Your task to perform on an android device: create a new album in the google photos Image 0: 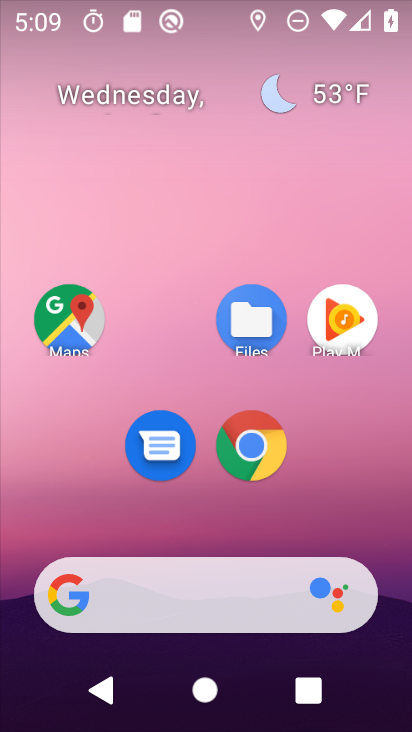
Step 0: drag from (341, 496) to (232, 3)
Your task to perform on an android device: create a new album in the google photos Image 1: 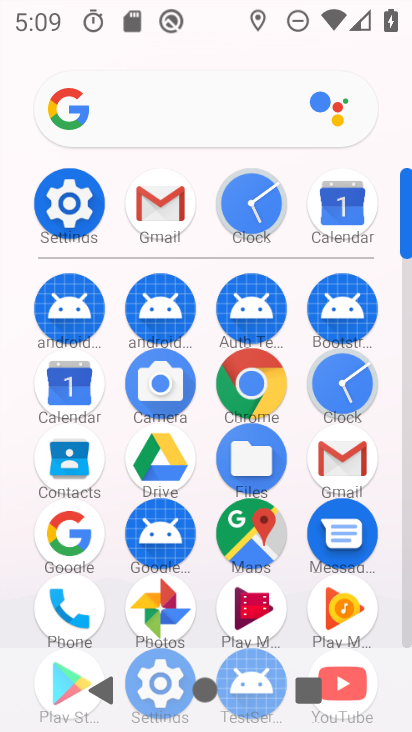
Step 1: click (143, 610)
Your task to perform on an android device: create a new album in the google photos Image 2: 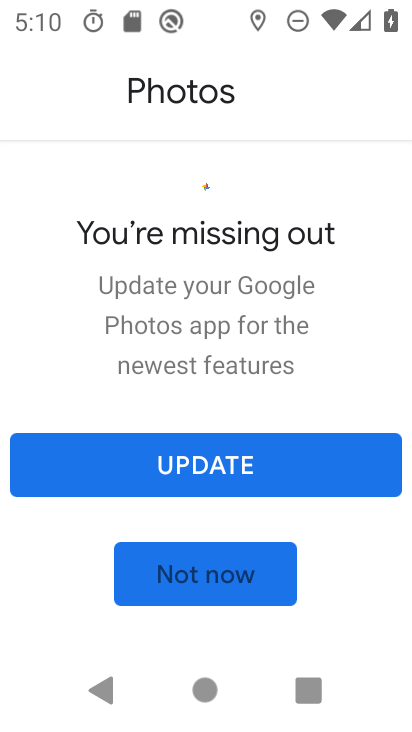
Step 2: click (229, 477)
Your task to perform on an android device: create a new album in the google photos Image 3: 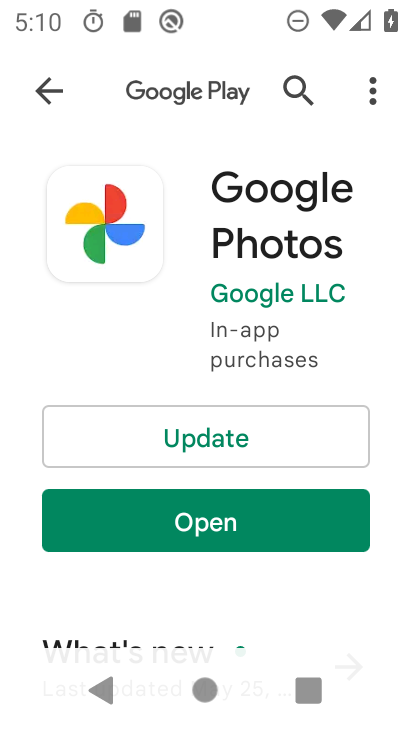
Step 3: click (228, 444)
Your task to perform on an android device: create a new album in the google photos Image 4: 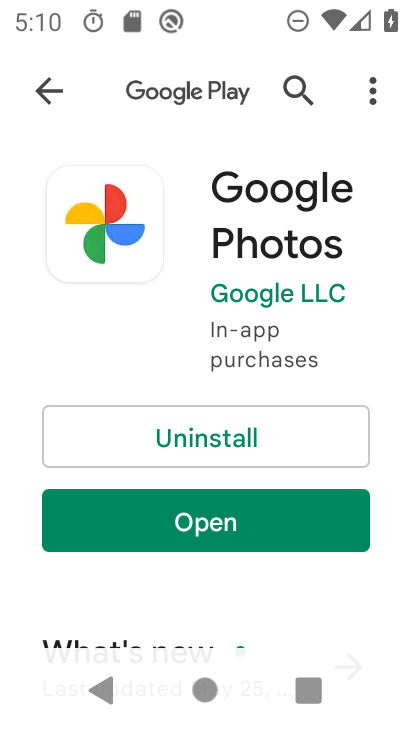
Step 4: click (218, 521)
Your task to perform on an android device: create a new album in the google photos Image 5: 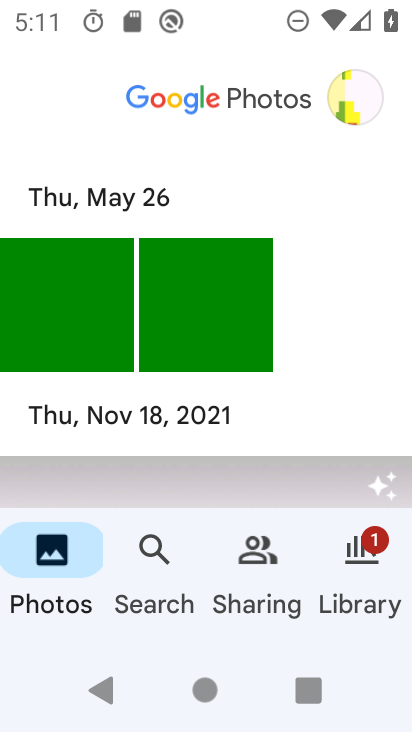
Step 5: click (160, 348)
Your task to perform on an android device: create a new album in the google photos Image 6: 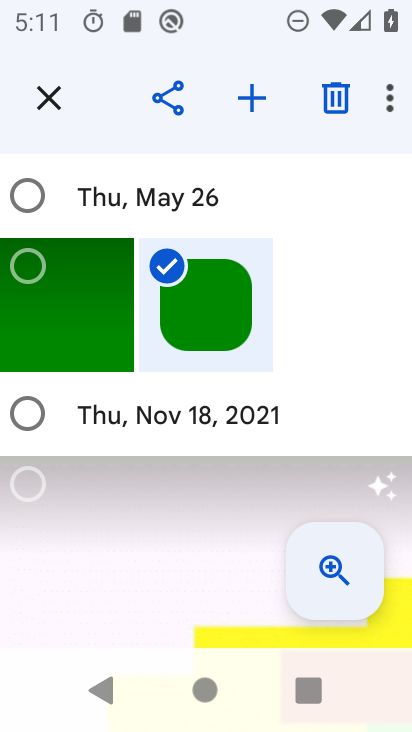
Step 6: click (59, 277)
Your task to perform on an android device: create a new album in the google photos Image 7: 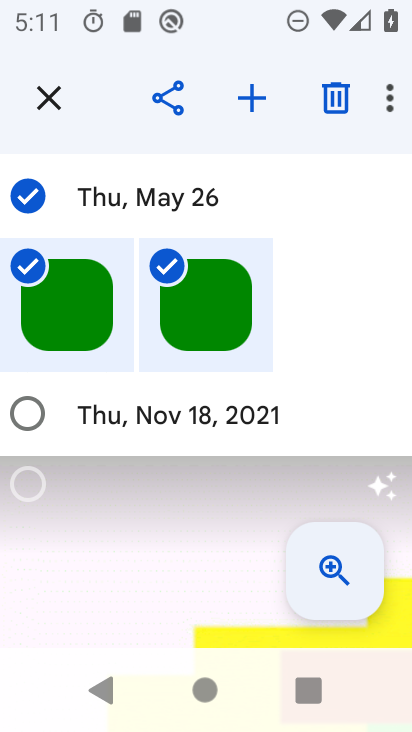
Step 7: click (24, 419)
Your task to perform on an android device: create a new album in the google photos Image 8: 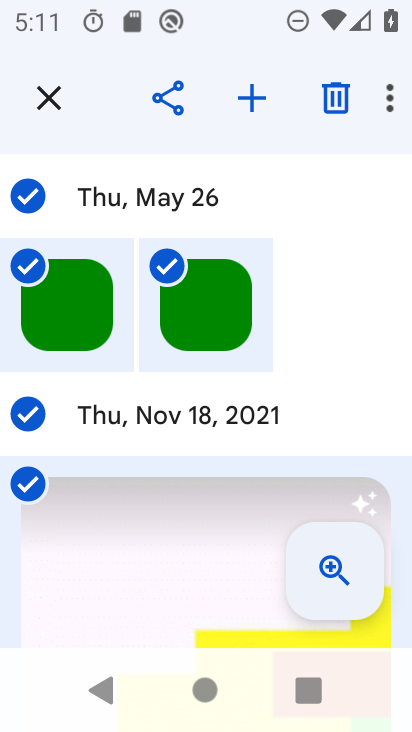
Step 8: click (255, 100)
Your task to perform on an android device: create a new album in the google photos Image 9: 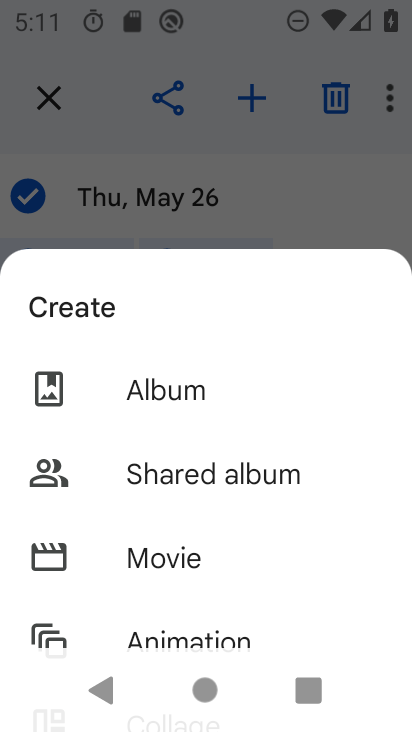
Step 9: click (166, 401)
Your task to perform on an android device: create a new album in the google photos Image 10: 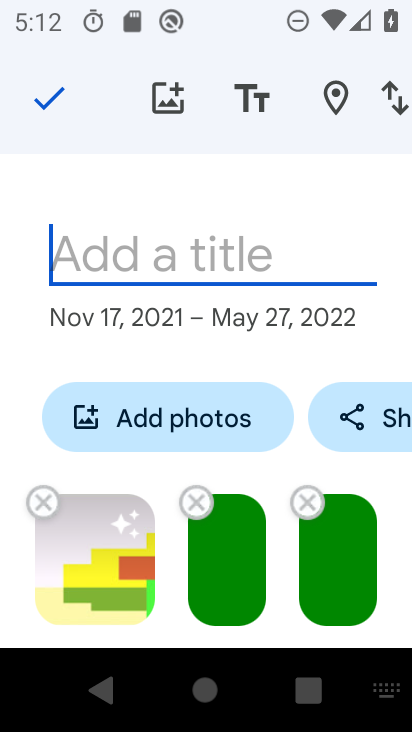
Step 10: type "19191411"
Your task to perform on an android device: create a new album in the google photos Image 11: 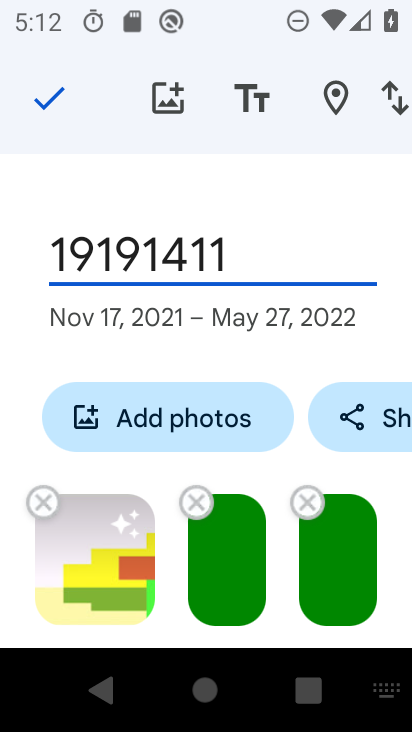
Step 11: click (35, 83)
Your task to perform on an android device: create a new album in the google photos Image 12: 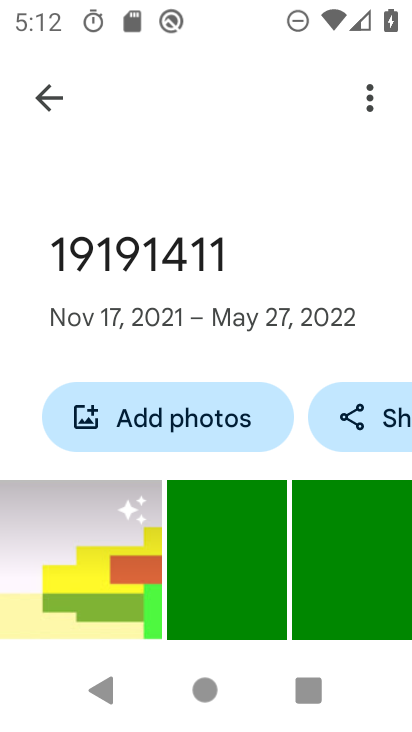
Step 12: task complete